Your task to perform on an android device: Show me the alarms in the clock app Image 0: 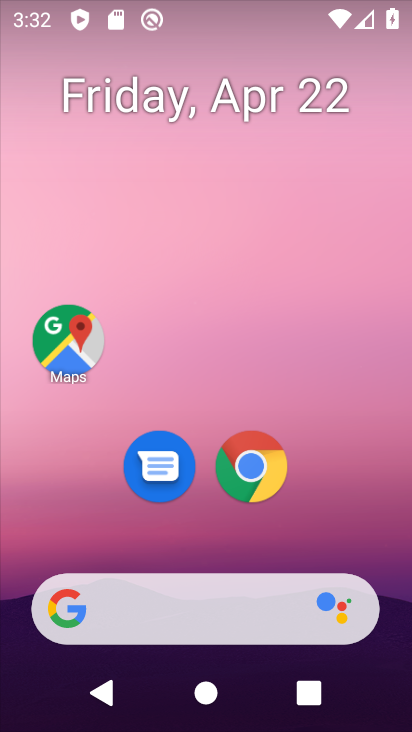
Step 0: drag from (395, 544) to (307, 32)
Your task to perform on an android device: Show me the alarms in the clock app Image 1: 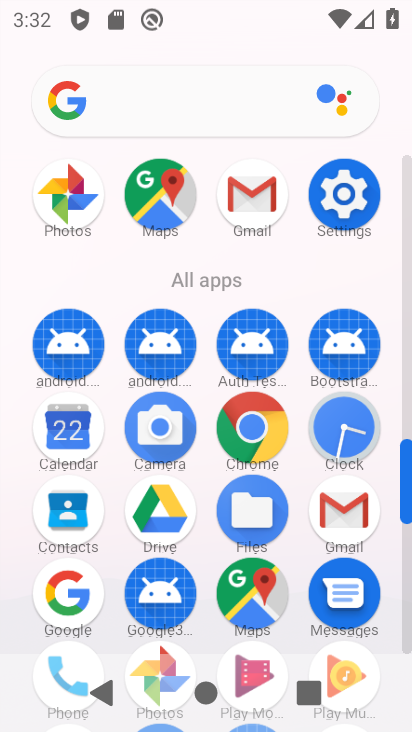
Step 1: click (405, 631)
Your task to perform on an android device: Show me the alarms in the clock app Image 2: 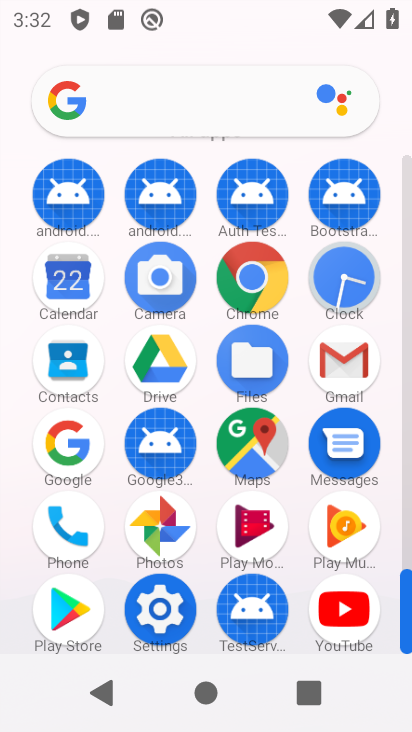
Step 2: click (340, 274)
Your task to perform on an android device: Show me the alarms in the clock app Image 3: 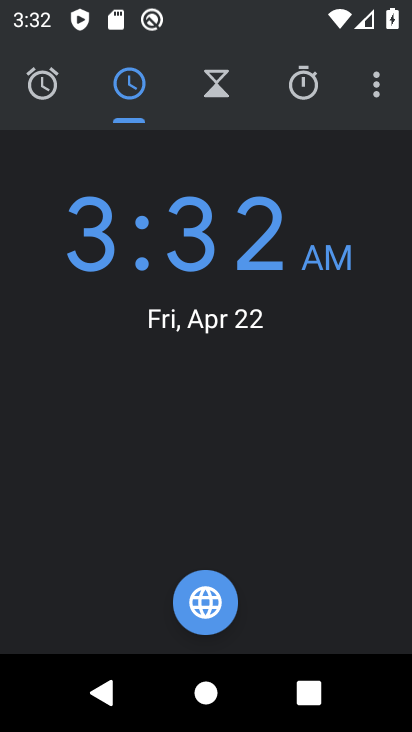
Step 3: click (38, 86)
Your task to perform on an android device: Show me the alarms in the clock app Image 4: 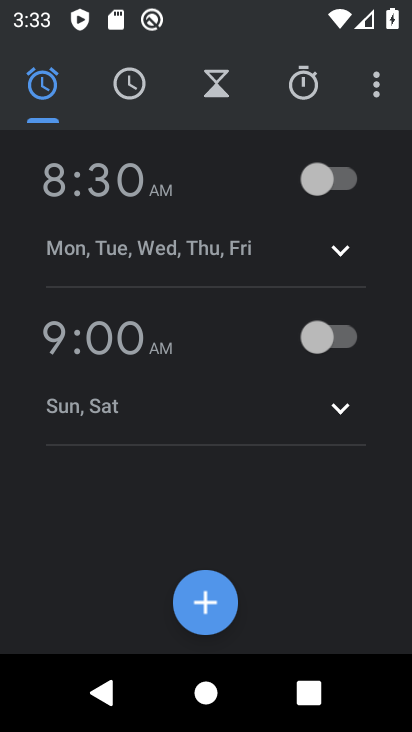
Step 4: click (85, 194)
Your task to perform on an android device: Show me the alarms in the clock app Image 5: 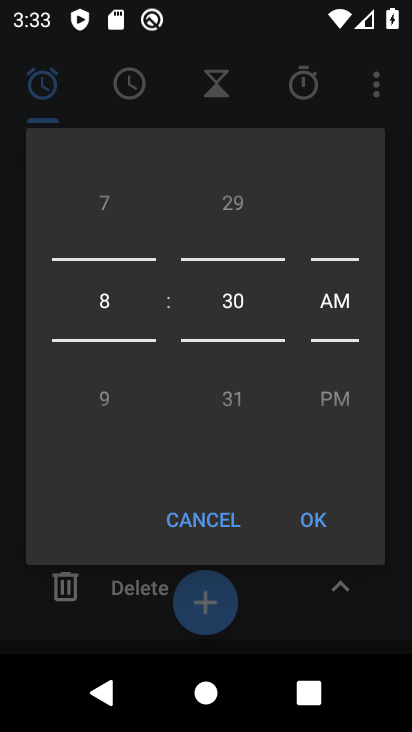
Step 5: drag from (111, 255) to (94, 488)
Your task to perform on an android device: Show me the alarms in the clock app Image 6: 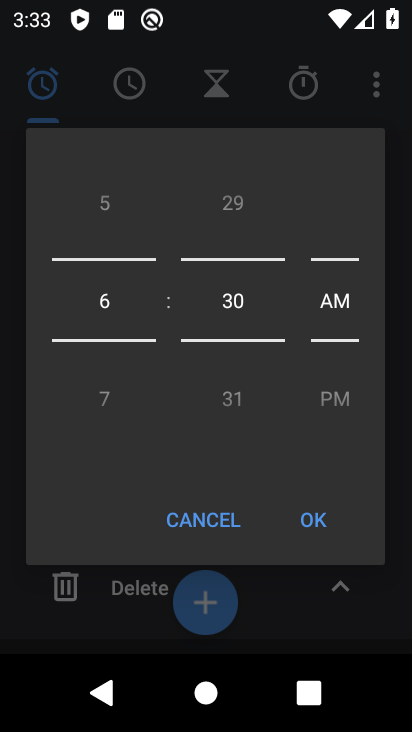
Step 6: click (311, 521)
Your task to perform on an android device: Show me the alarms in the clock app Image 7: 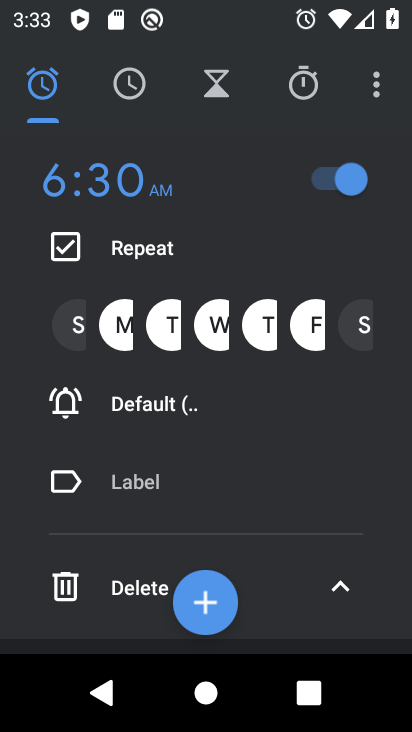
Step 7: click (363, 329)
Your task to perform on an android device: Show me the alarms in the clock app Image 8: 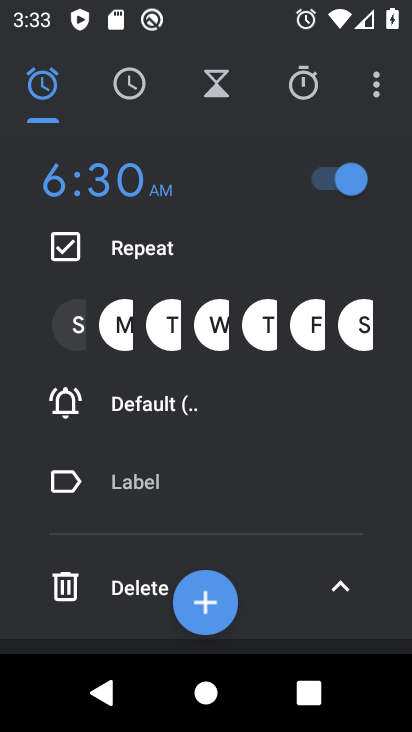
Step 8: click (340, 576)
Your task to perform on an android device: Show me the alarms in the clock app Image 9: 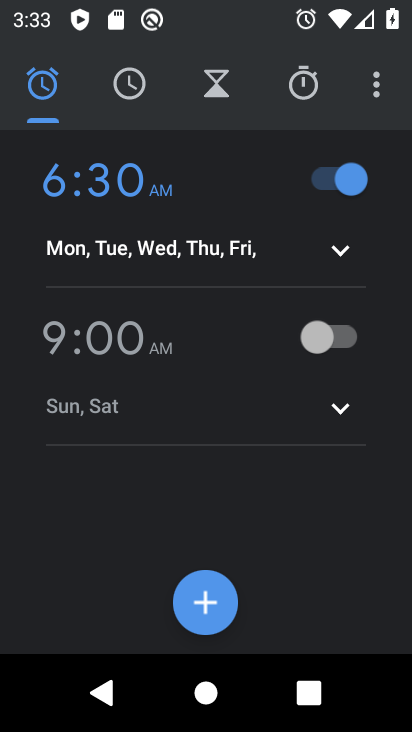
Step 9: task complete